Your task to perform on an android device: Open the stopwatch Image 0: 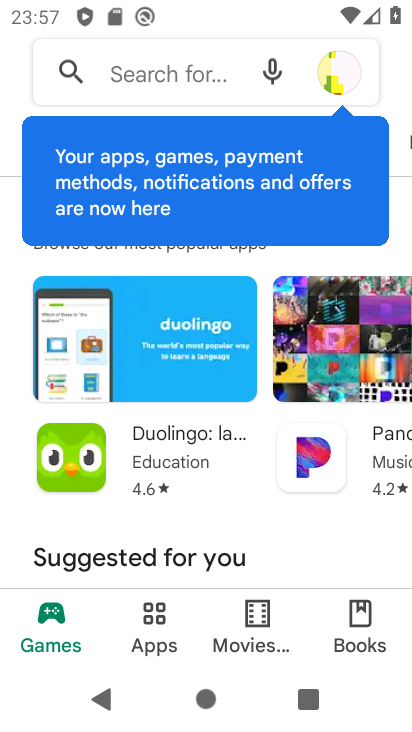
Step 0: press home button
Your task to perform on an android device: Open the stopwatch Image 1: 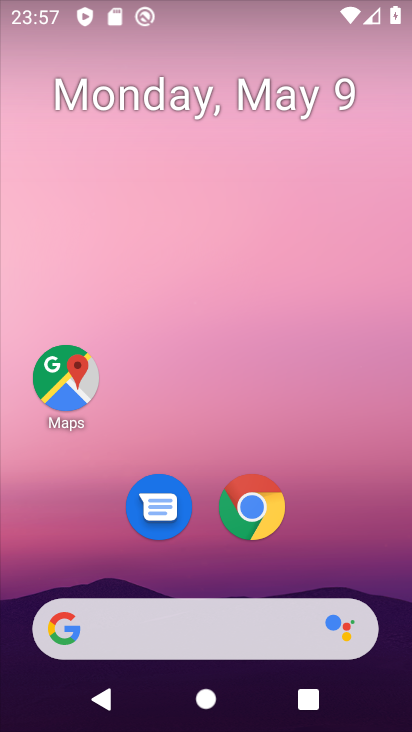
Step 1: drag from (325, 514) to (286, 150)
Your task to perform on an android device: Open the stopwatch Image 2: 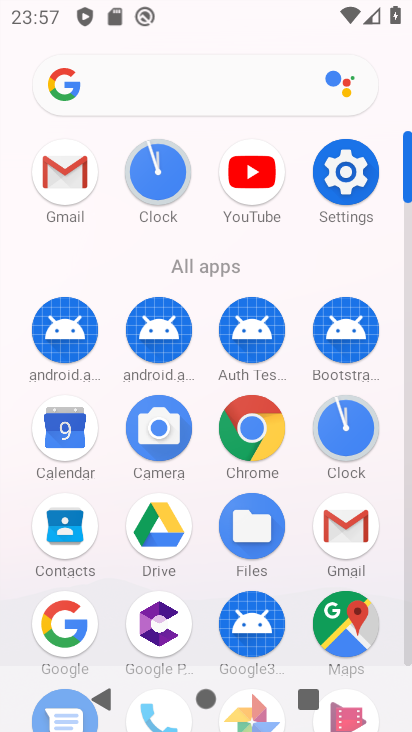
Step 2: click (341, 433)
Your task to perform on an android device: Open the stopwatch Image 3: 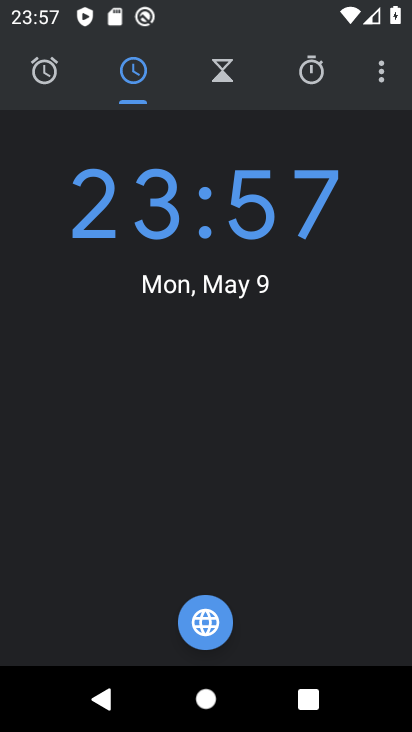
Step 3: click (321, 81)
Your task to perform on an android device: Open the stopwatch Image 4: 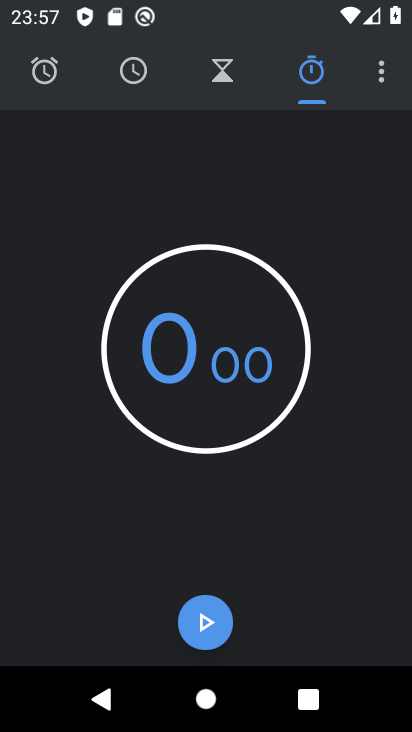
Step 4: task complete